Your task to perform on an android device: Open Wikipedia Image 0: 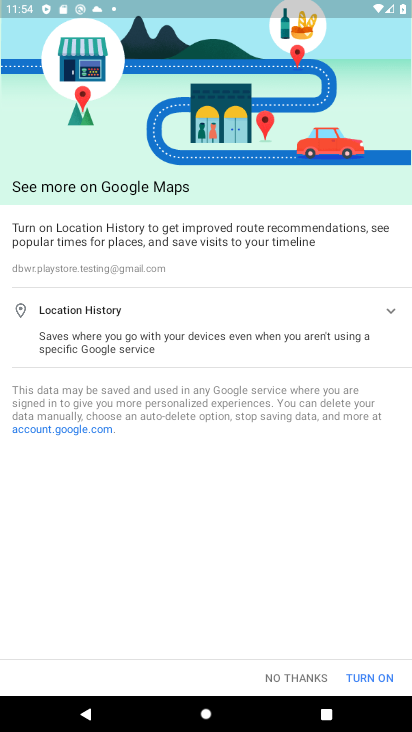
Step 0: press home button
Your task to perform on an android device: Open Wikipedia Image 1: 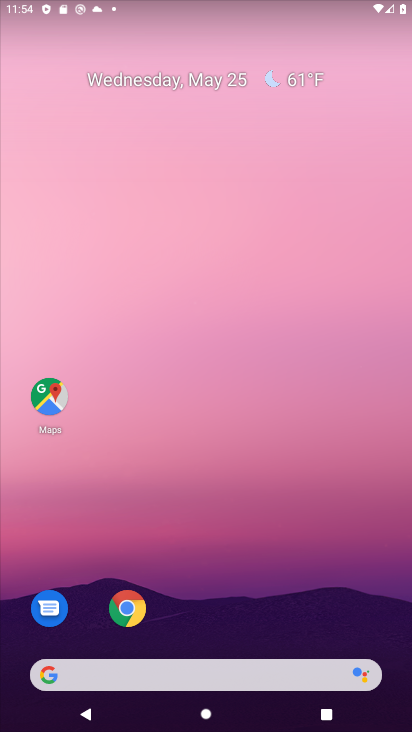
Step 1: click (126, 617)
Your task to perform on an android device: Open Wikipedia Image 2: 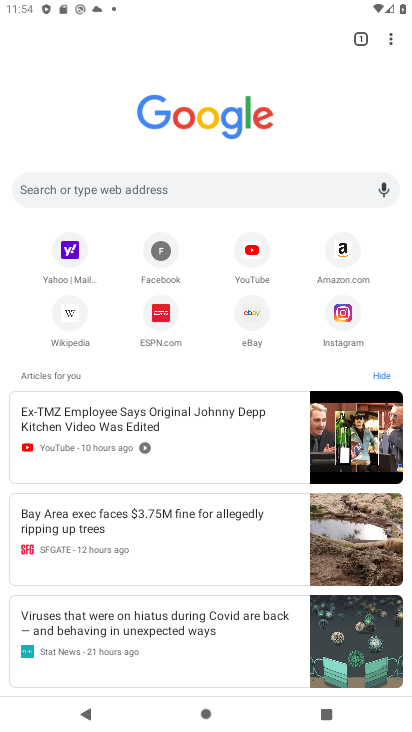
Step 2: click (120, 185)
Your task to perform on an android device: Open Wikipedia Image 3: 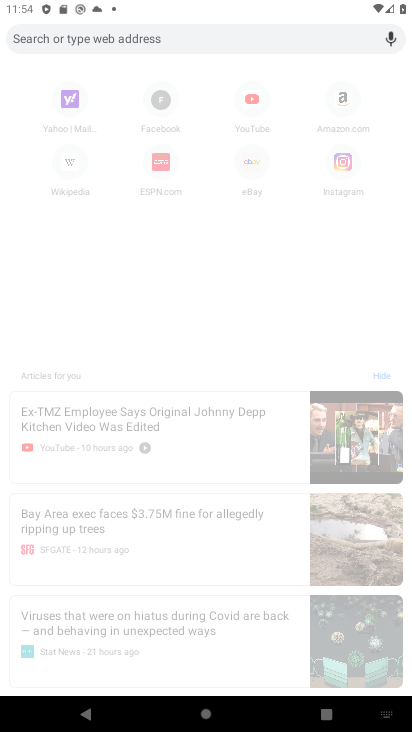
Step 3: type "wikipedia"
Your task to perform on an android device: Open Wikipedia Image 4: 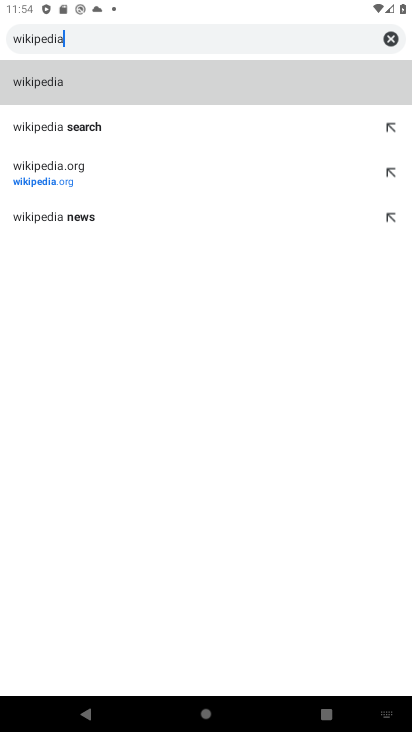
Step 4: click (39, 170)
Your task to perform on an android device: Open Wikipedia Image 5: 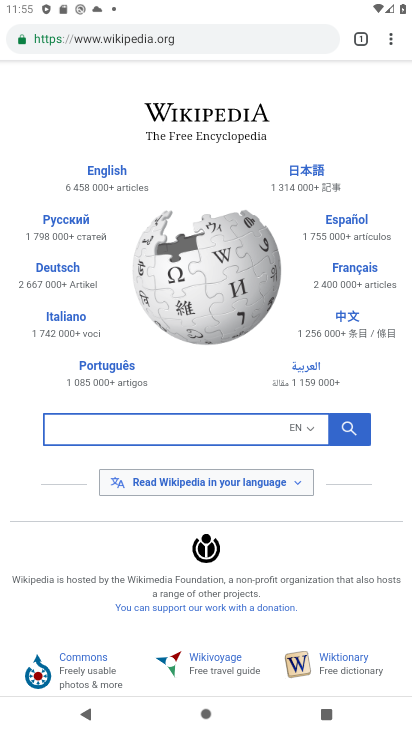
Step 5: task complete